Your task to perform on an android device: turn off sleep mode Image 0: 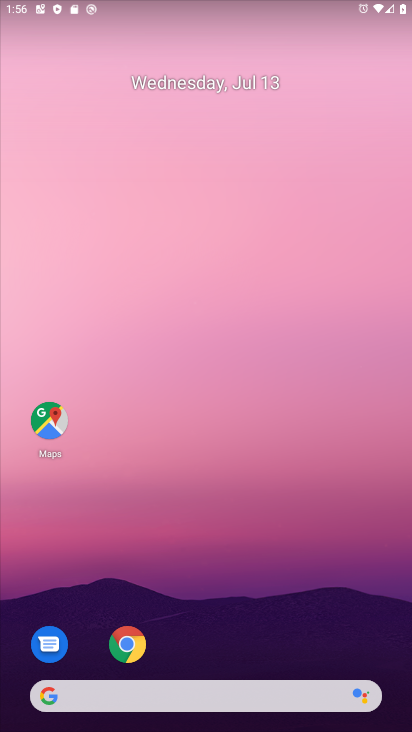
Step 0: drag from (216, 665) to (194, 37)
Your task to perform on an android device: turn off sleep mode Image 1: 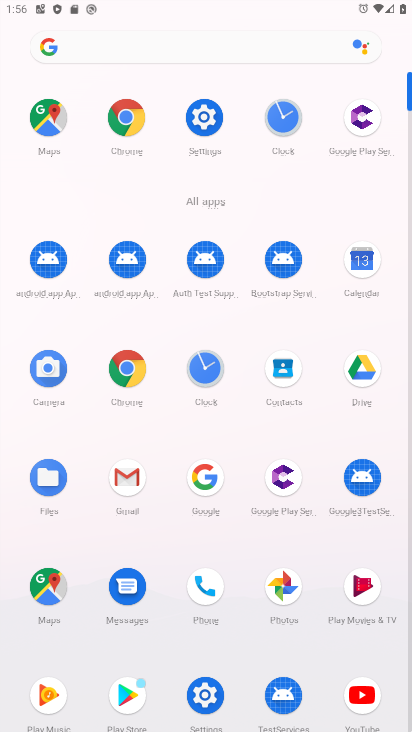
Step 1: click (204, 111)
Your task to perform on an android device: turn off sleep mode Image 2: 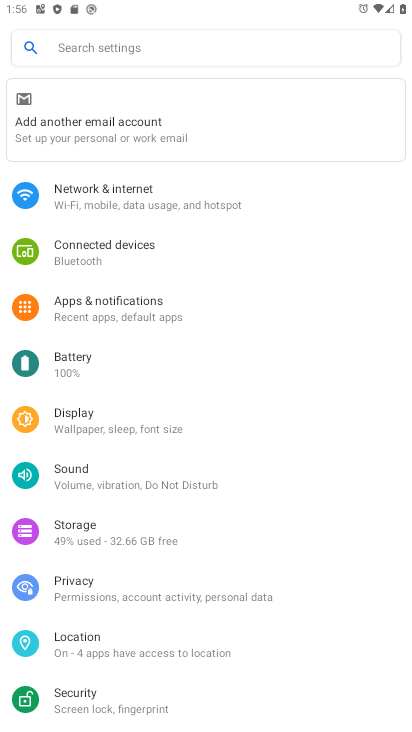
Step 2: click (62, 410)
Your task to perform on an android device: turn off sleep mode Image 3: 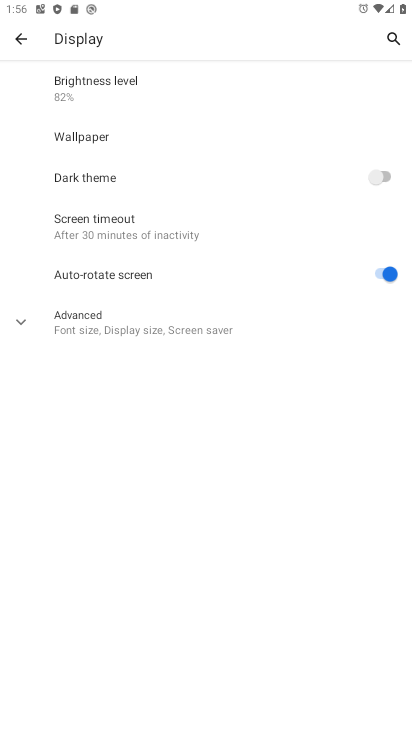
Step 3: task complete